Your task to perform on an android device: Open the calendar app, open the side menu, and click the "Day" option Image 0: 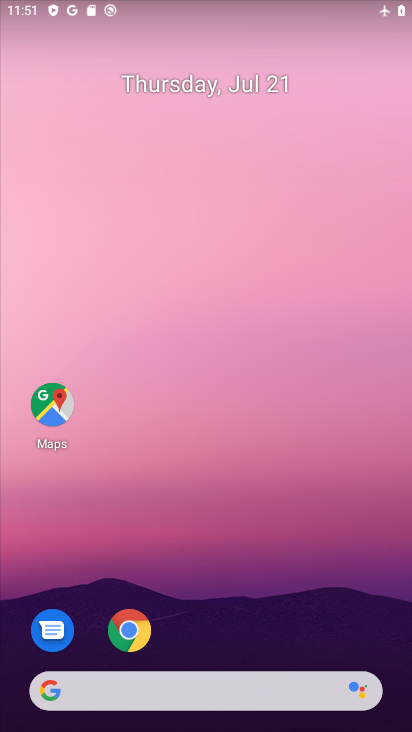
Step 0: drag from (218, 653) to (1, 4)
Your task to perform on an android device: Open the calendar app, open the side menu, and click the "Day" option Image 1: 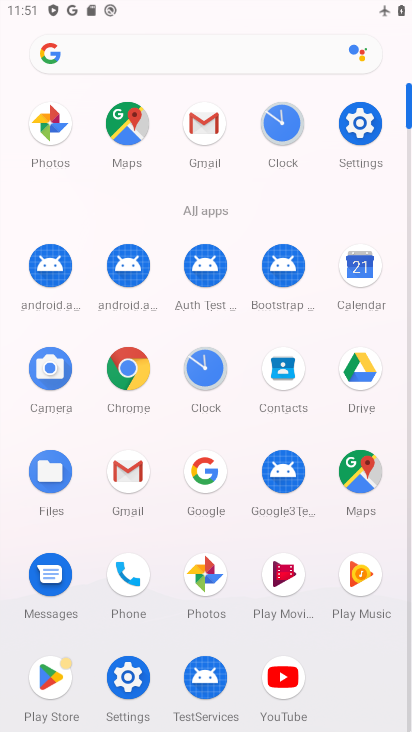
Step 1: click (381, 249)
Your task to perform on an android device: Open the calendar app, open the side menu, and click the "Day" option Image 2: 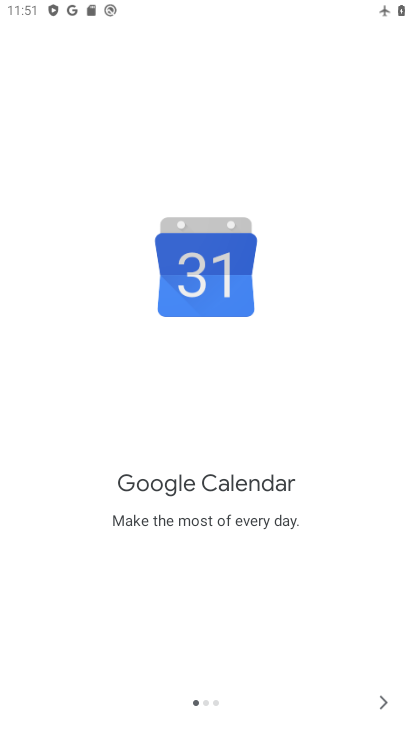
Step 2: click (388, 695)
Your task to perform on an android device: Open the calendar app, open the side menu, and click the "Day" option Image 3: 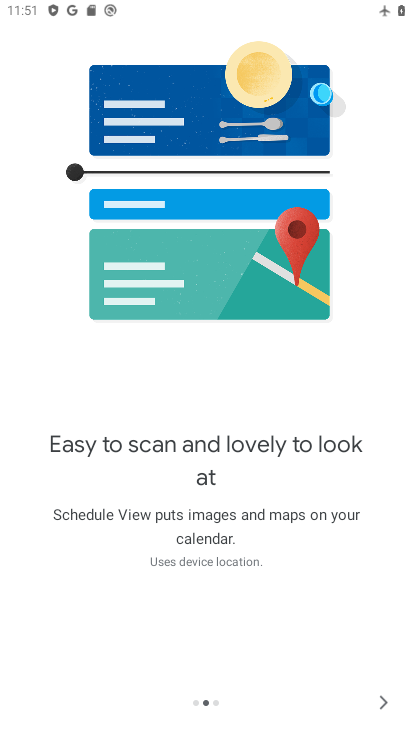
Step 3: click (387, 695)
Your task to perform on an android device: Open the calendar app, open the side menu, and click the "Day" option Image 4: 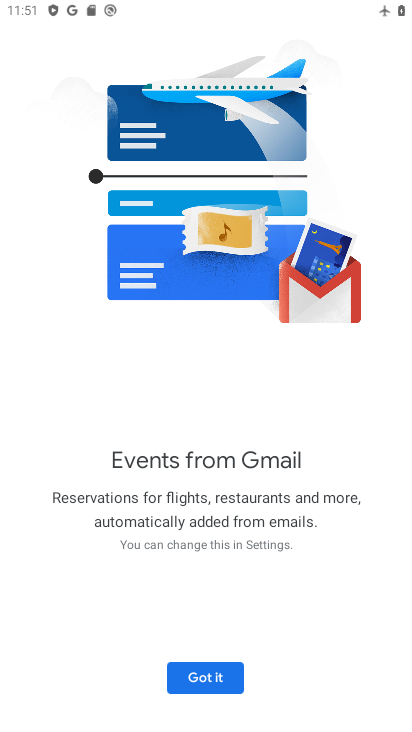
Step 4: click (203, 672)
Your task to perform on an android device: Open the calendar app, open the side menu, and click the "Day" option Image 5: 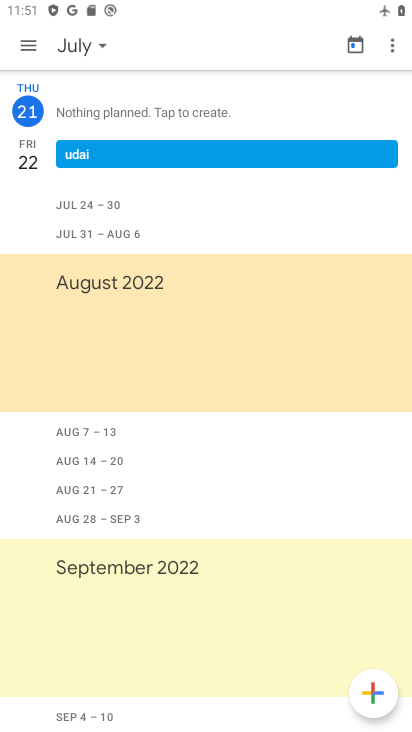
Step 5: click (34, 43)
Your task to perform on an android device: Open the calendar app, open the side menu, and click the "Day" option Image 6: 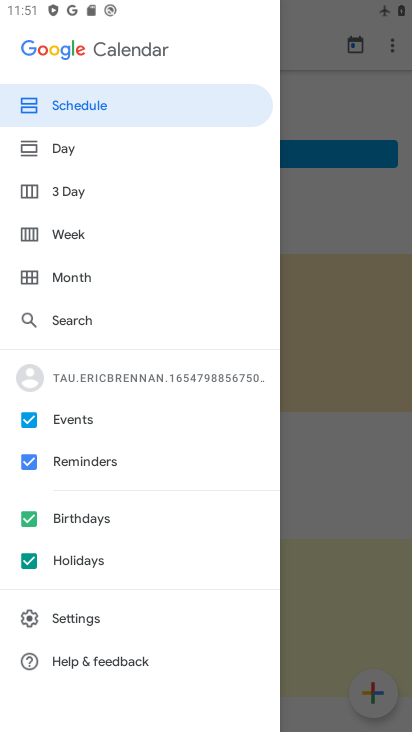
Step 6: click (61, 140)
Your task to perform on an android device: Open the calendar app, open the side menu, and click the "Day" option Image 7: 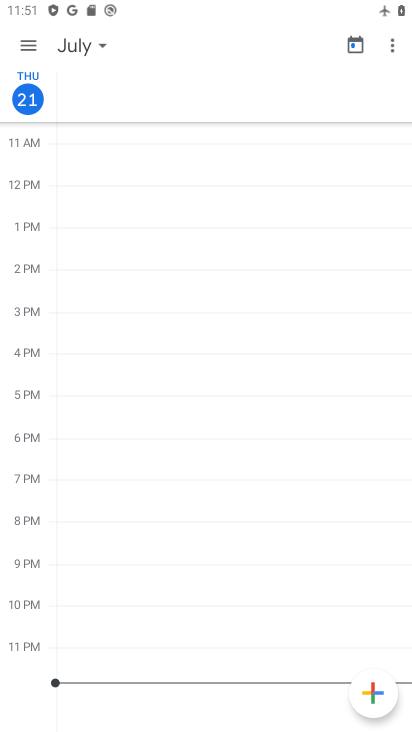
Step 7: task complete